Your task to perform on an android device: find snoozed emails in the gmail app Image 0: 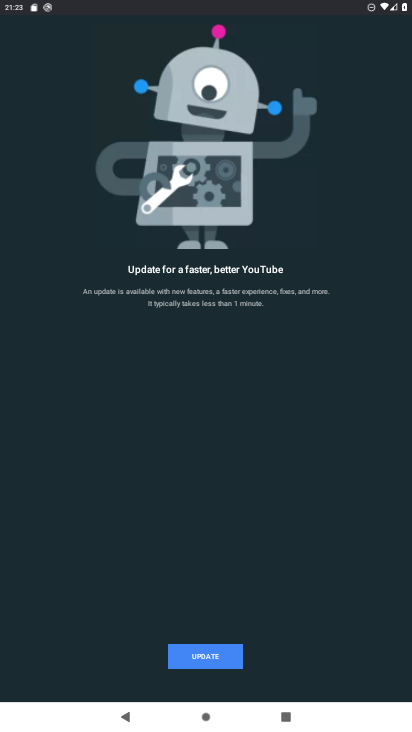
Step 0: press home button
Your task to perform on an android device: find snoozed emails in the gmail app Image 1: 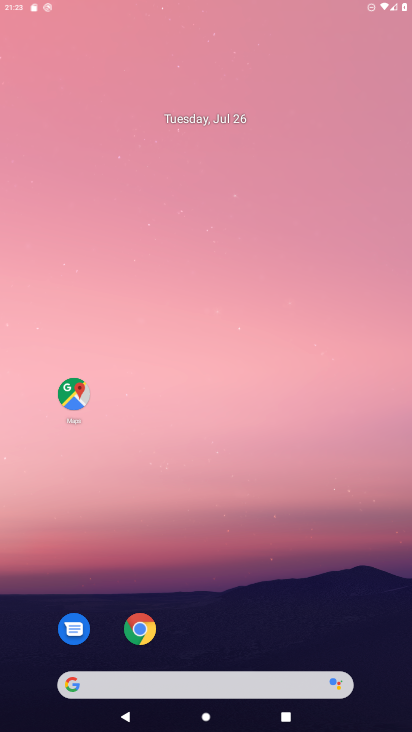
Step 1: drag from (279, 626) to (271, 210)
Your task to perform on an android device: find snoozed emails in the gmail app Image 2: 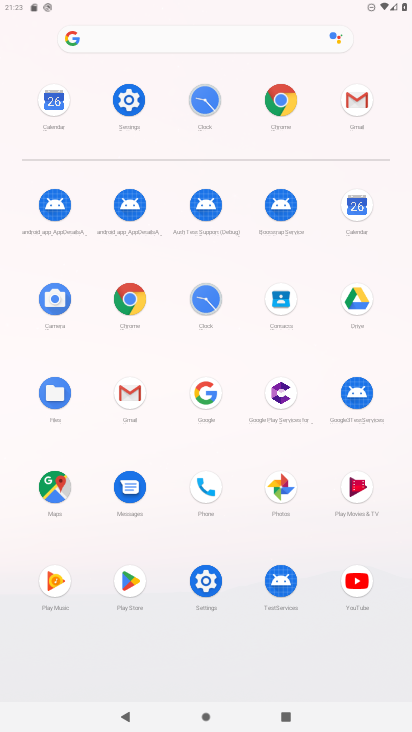
Step 2: click (138, 411)
Your task to perform on an android device: find snoozed emails in the gmail app Image 3: 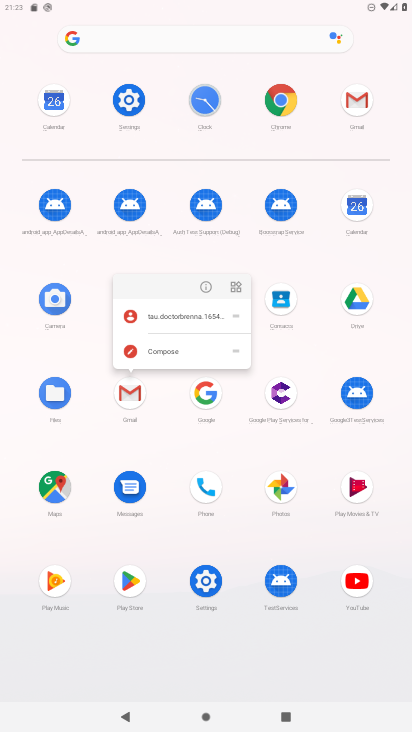
Step 3: click (138, 411)
Your task to perform on an android device: find snoozed emails in the gmail app Image 4: 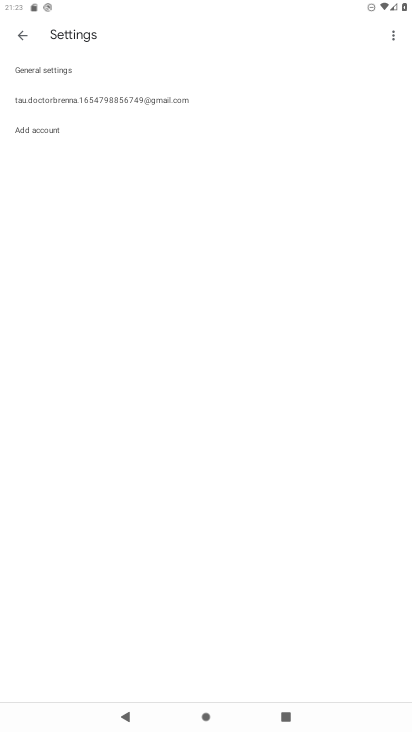
Step 4: click (27, 42)
Your task to perform on an android device: find snoozed emails in the gmail app Image 5: 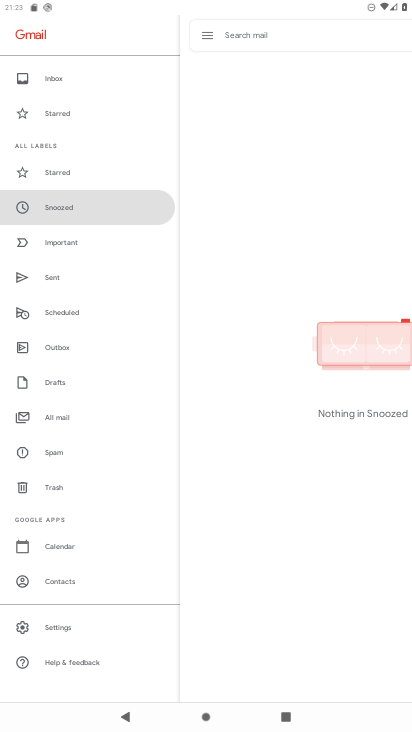
Step 5: click (83, 216)
Your task to perform on an android device: find snoozed emails in the gmail app Image 6: 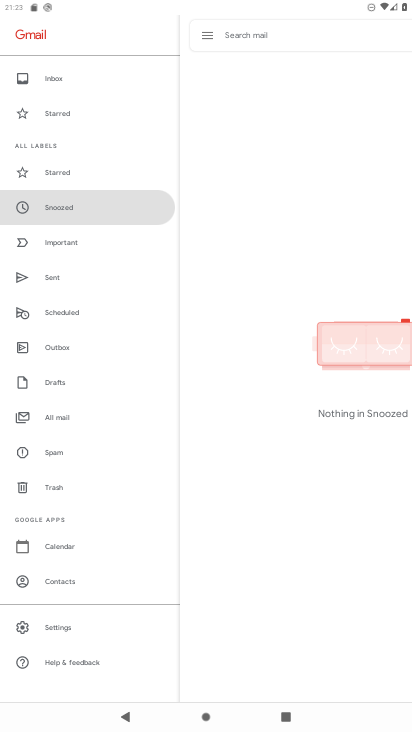
Step 6: task complete